Your task to perform on an android device: Play the last video I watched on Youtube Image 0: 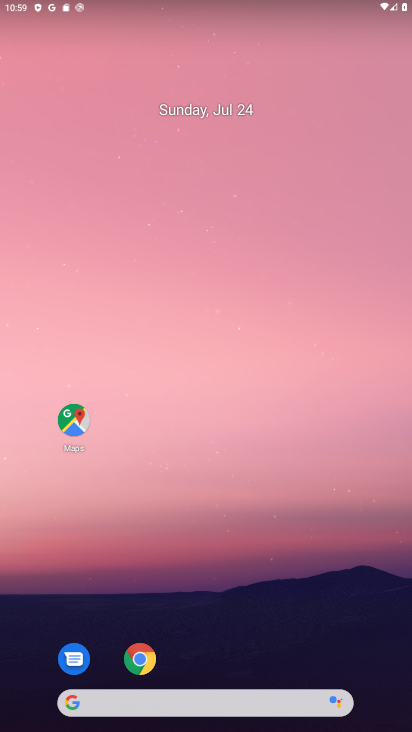
Step 0: drag from (275, 666) to (276, 242)
Your task to perform on an android device: Play the last video I watched on Youtube Image 1: 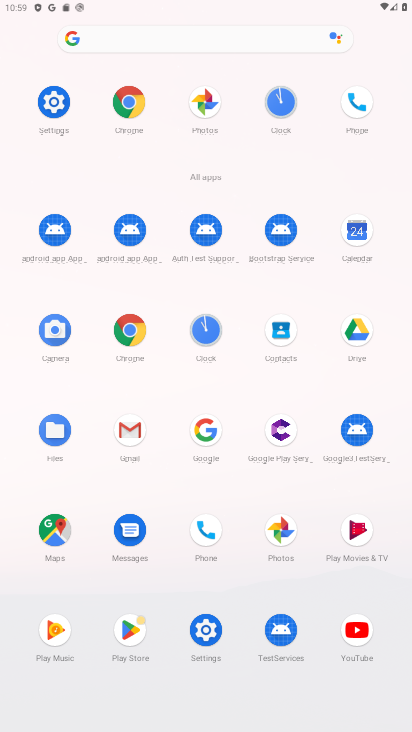
Step 1: click (343, 623)
Your task to perform on an android device: Play the last video I watched on Youtube Image 2: 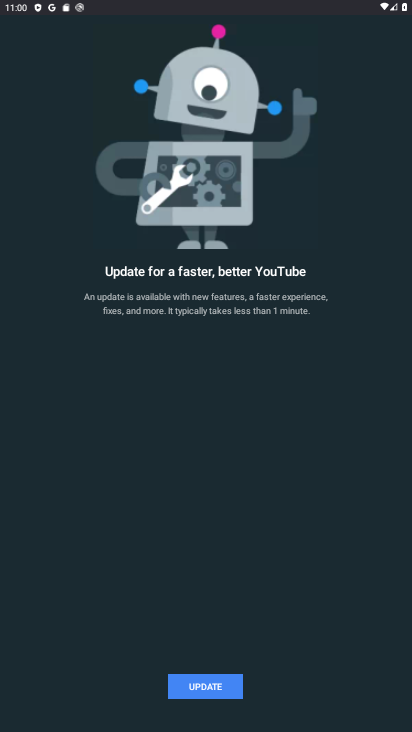
Step 2: task complete